Your task to perform on an android device: Go to wifi settings Image 0: 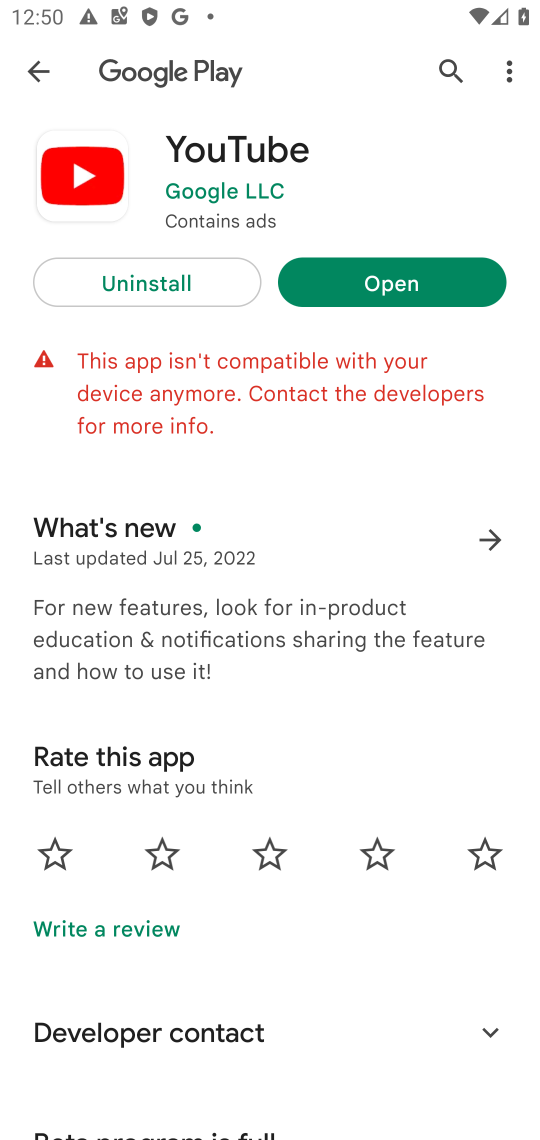
Step 0: press home button
Your task to perform on an android device: Go to wifi settings Image 1: 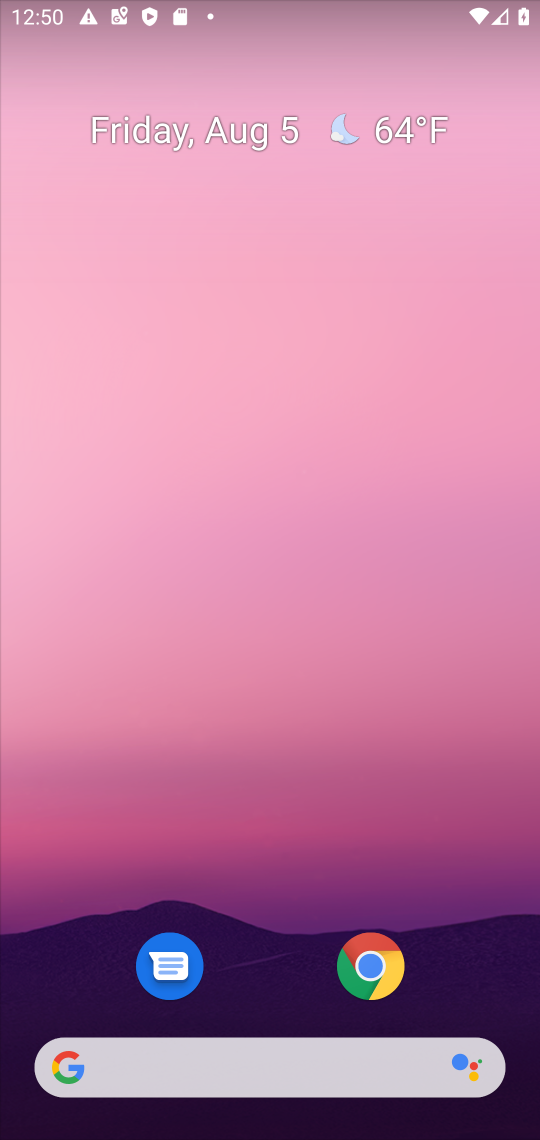
Step 1: drag from (306, 839) to (282, 55)
Your task to perform on an android device: Go to wifi settings Image 2: 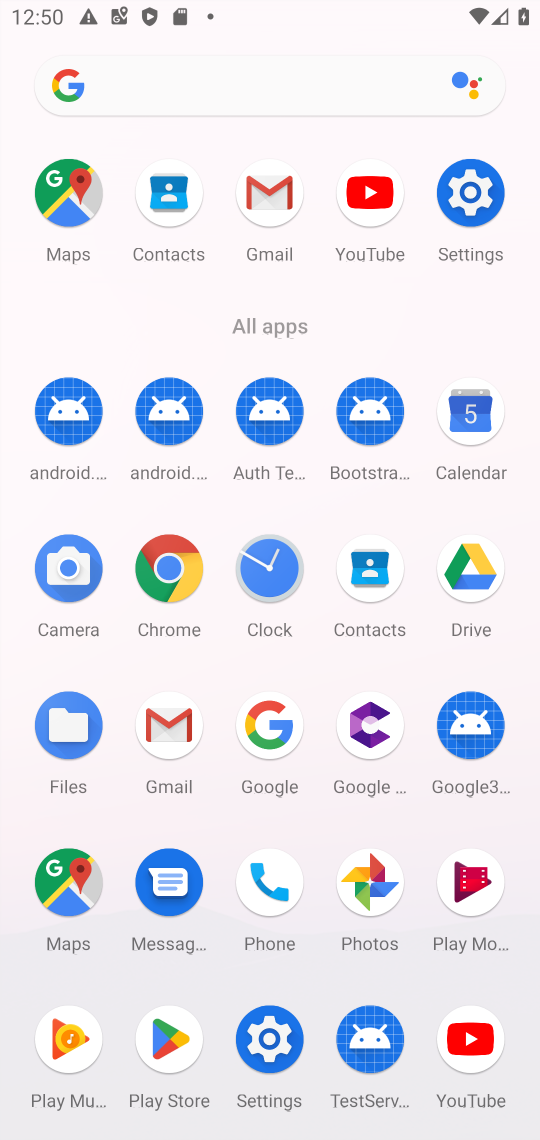
Step 2: click (461, 189)
Your task to perform on an android device: Go to wifi settings Image 3: 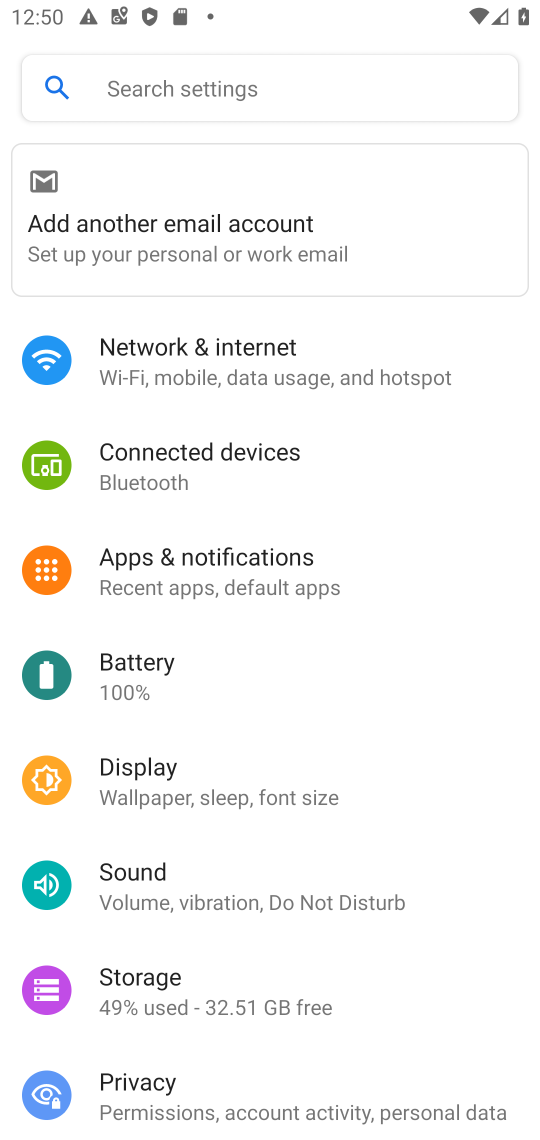
Step 3: click (250, 360)
Your task to perform on an android device: Go to wifi settings Image 4: 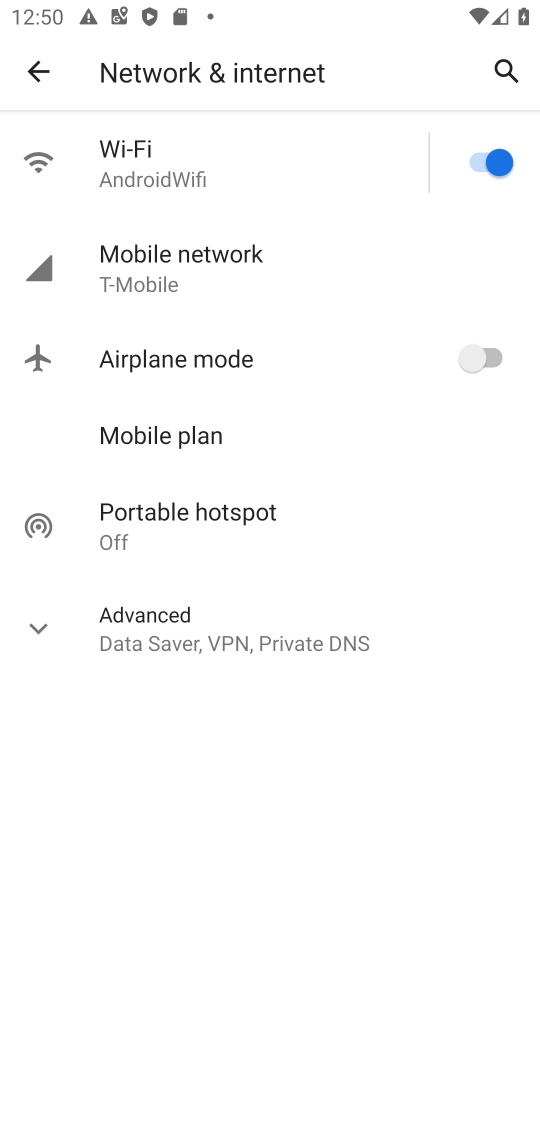
Step 4: click (187, 169)
Your task to perform on an android device: Go to wifi settings Image 5: 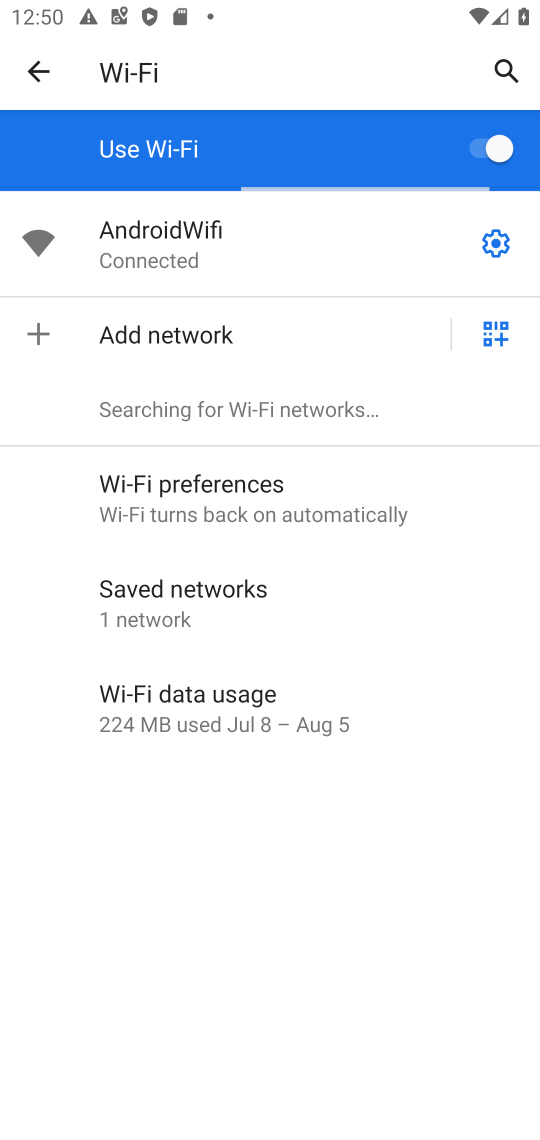
Step 5: task complete